Your task to perform on an android device: Open calendar and show me the third week of next month Image 0: 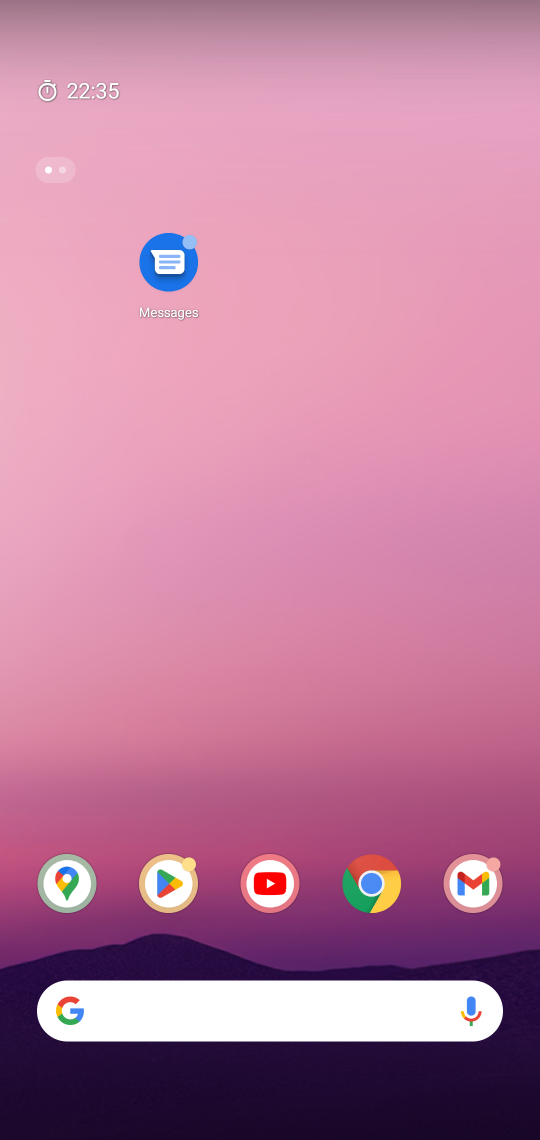
Step 0: drag from (322, 941) to (301, 97)
Your task to perform on an android device: Open calendar and show me the third week of next month Image 1: 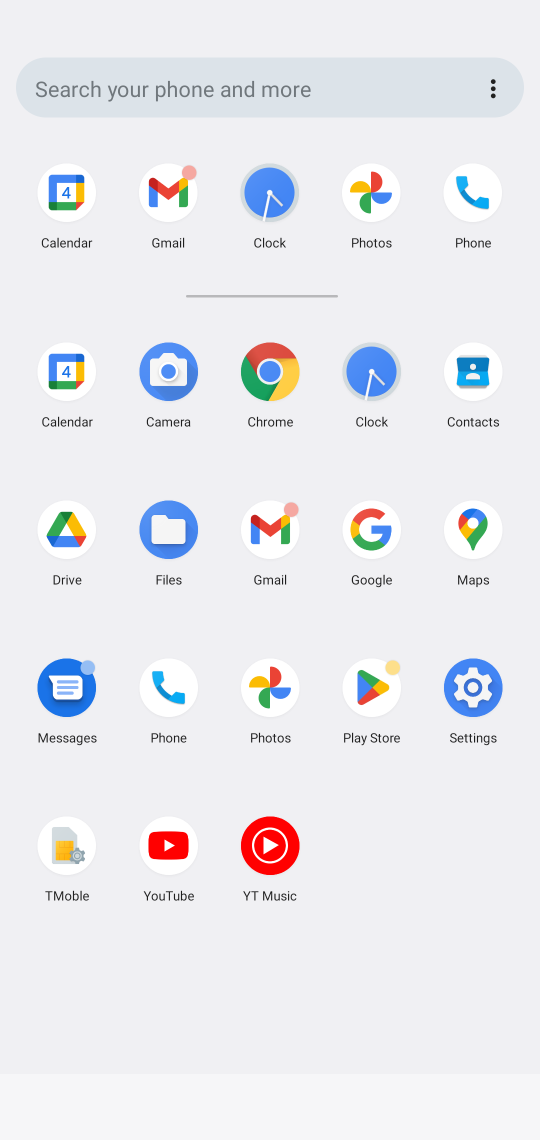
Step 1: click (58, 371)
Your task to perform on an android device: Open calendar and show me the third week of next month Image 2: 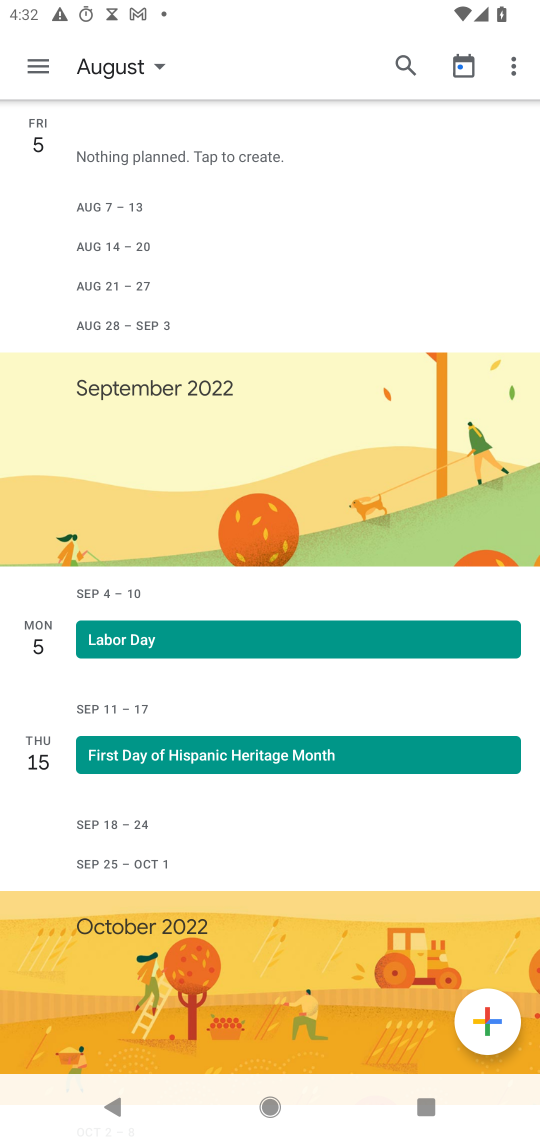
Step 2: click (161, 64)
Your task to perform on an android device: Open calendar and show me the third week of next month Image 3: 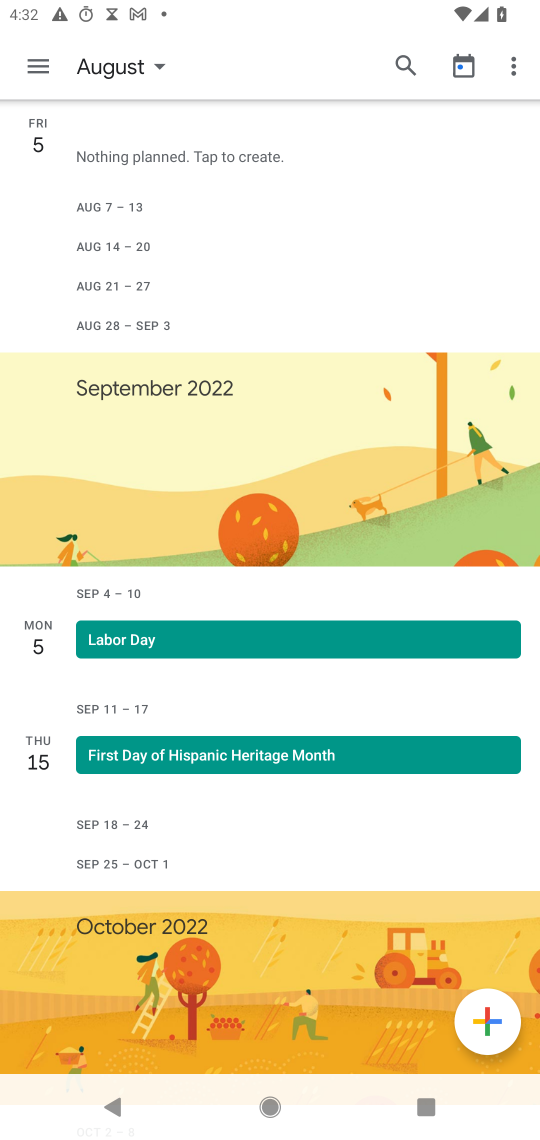
Step 3: click (154, 61)
Your task to perform on an android device: Open calendar and show me the third week of next month Image 4: 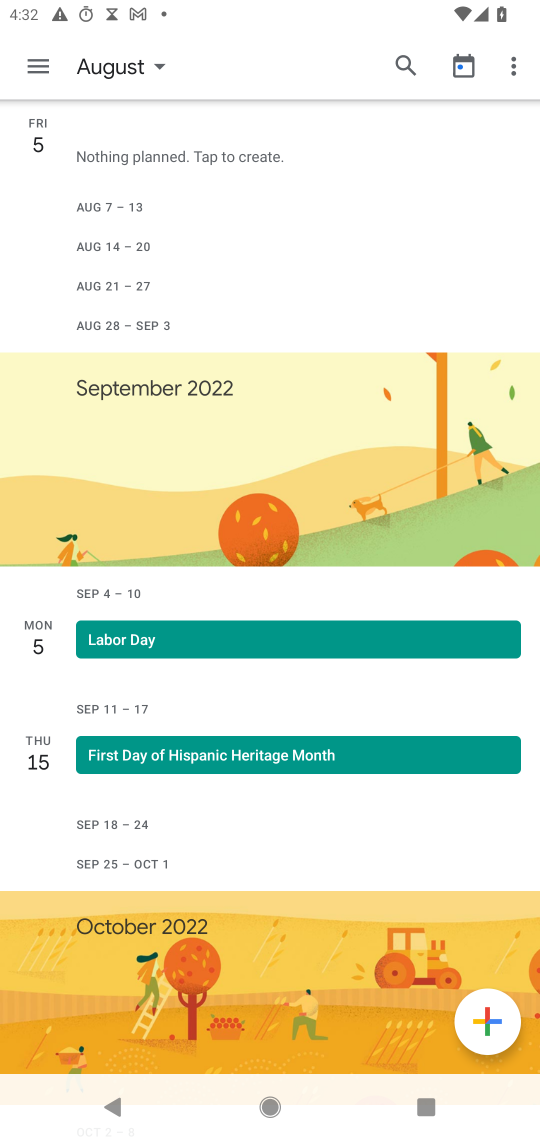
Step 4: click (159, 60)
Your task to perform on an android device: Open calendar and show me the third week of next month Image 5: 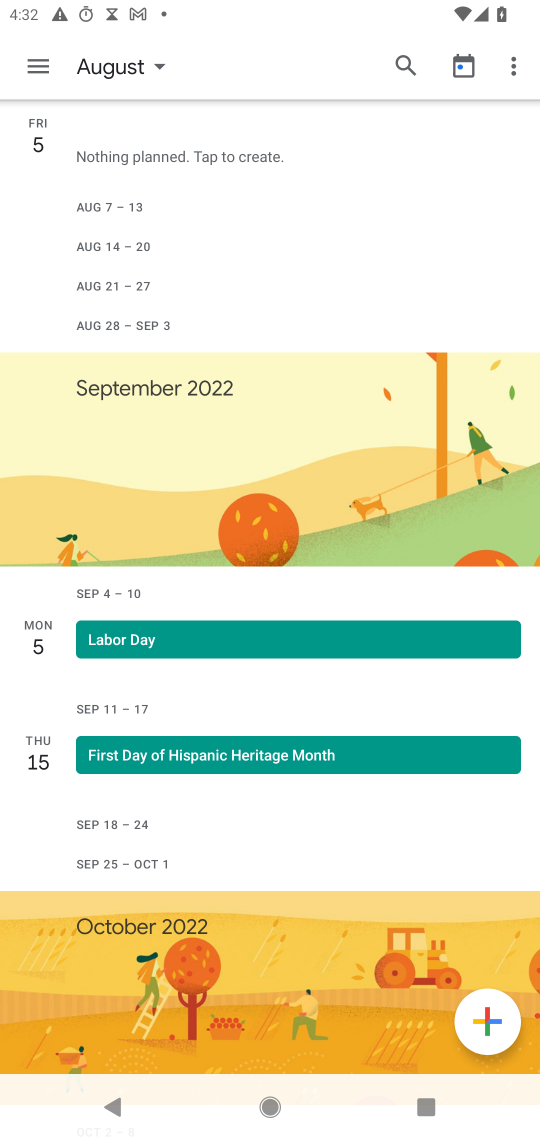
Step 5: click (162, 69)
Your task to perform on an android device: Open calendar and show me the third week of next month Image 6: 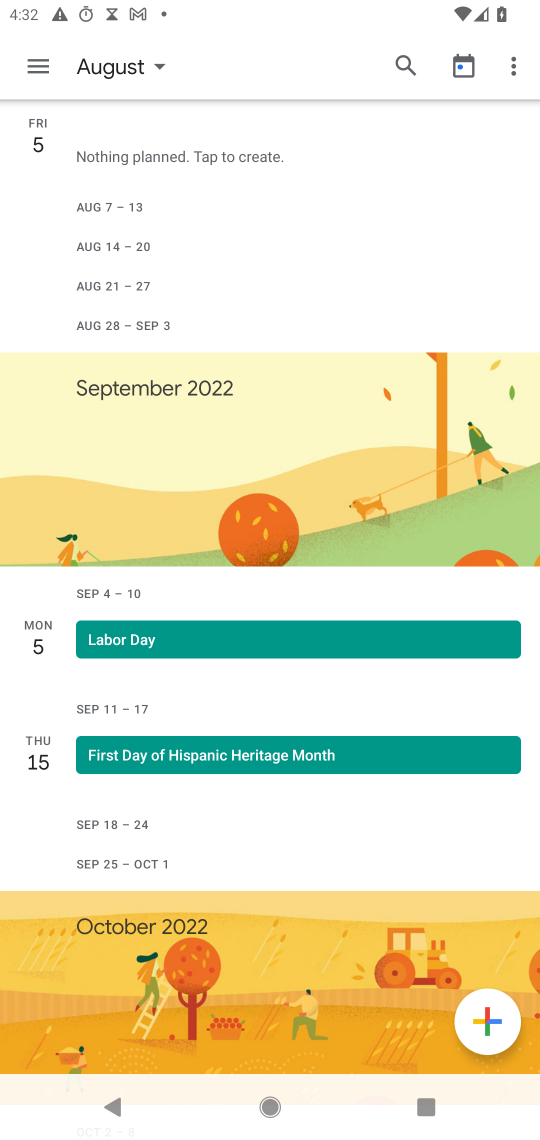
Step 6: click (152, 61)
Your task to perform on an android device: Open calendar and show me the third week of next month Image 7: 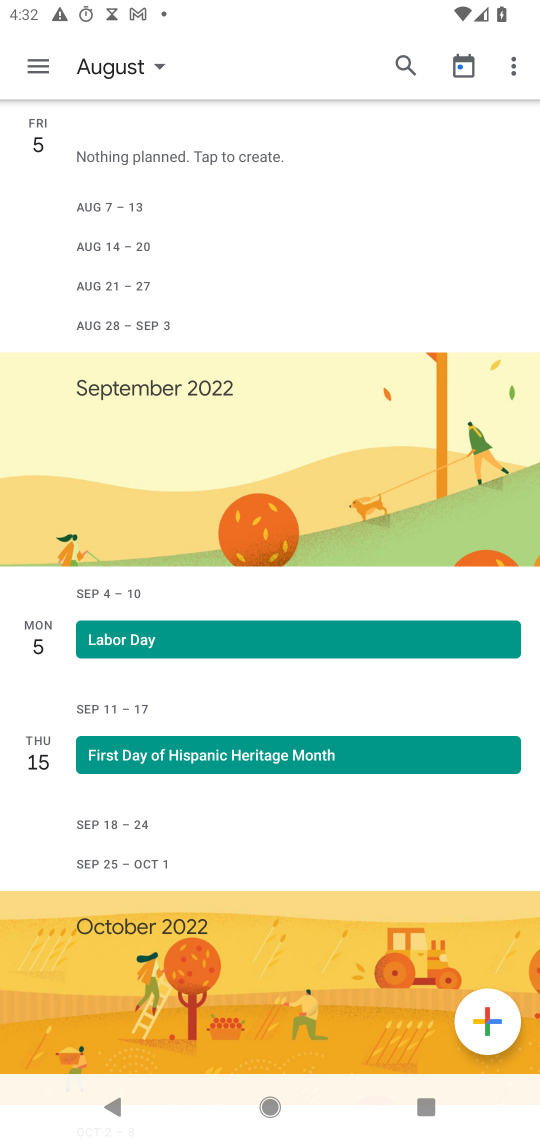
Step 7: click (163, 59)
Your task to perform on an android device: Open calendar and show me the third week of next month Image 8: 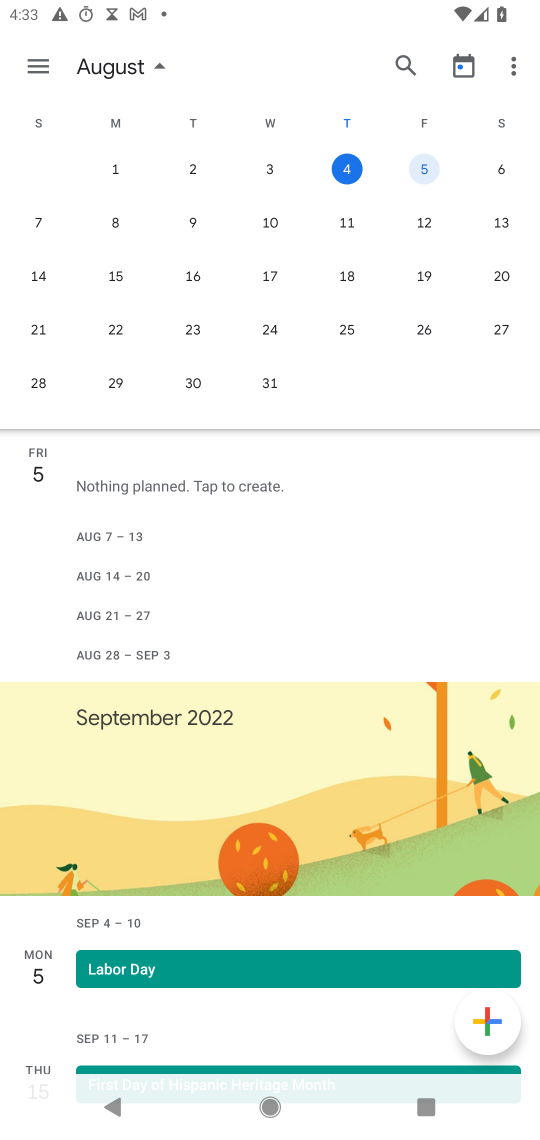
Step 8: click (146, 64)
Your task to perform on an android device: Open calendar and show me the third week of next month Image 9: 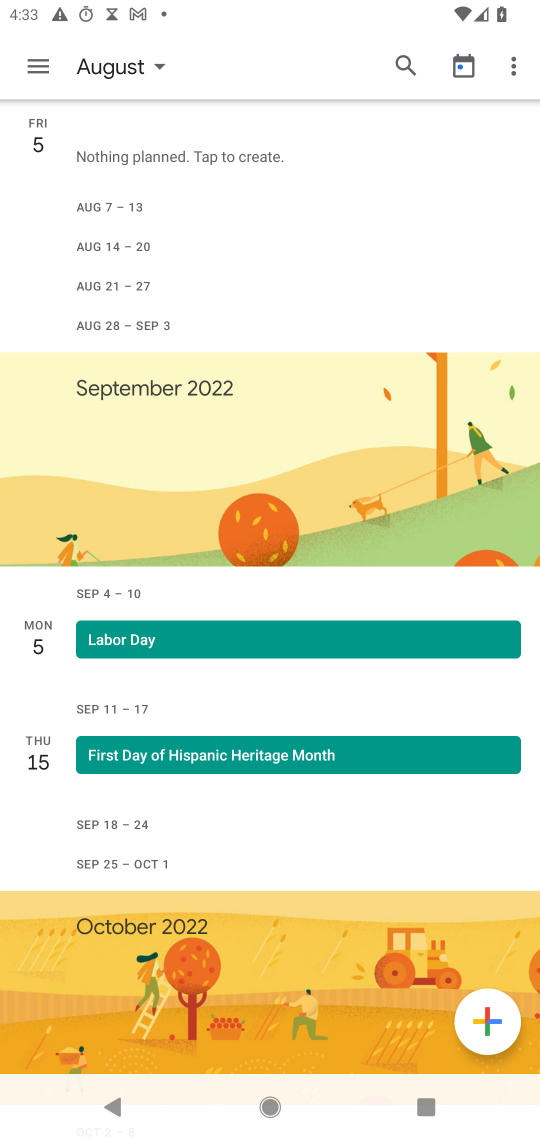
Step 9: click (157, 61)
Your task to perform on an android device: Open calendar and show me the third week of next month Image 10: 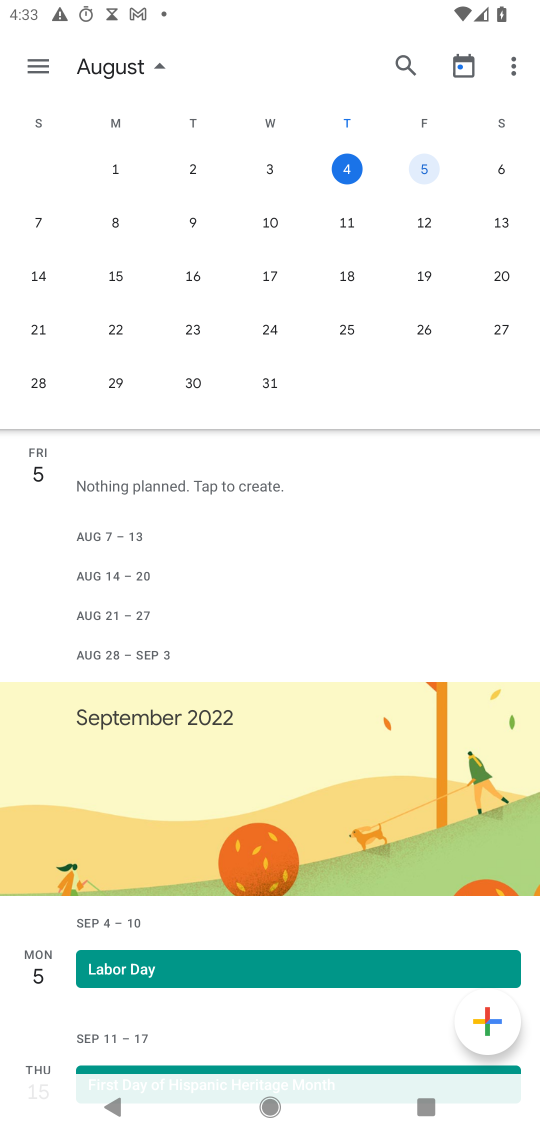
Step 10: drag from (456, 267) to (61, 265)
Your task to perform on an android device: Open calendar and show me the third week of next month Image 11: 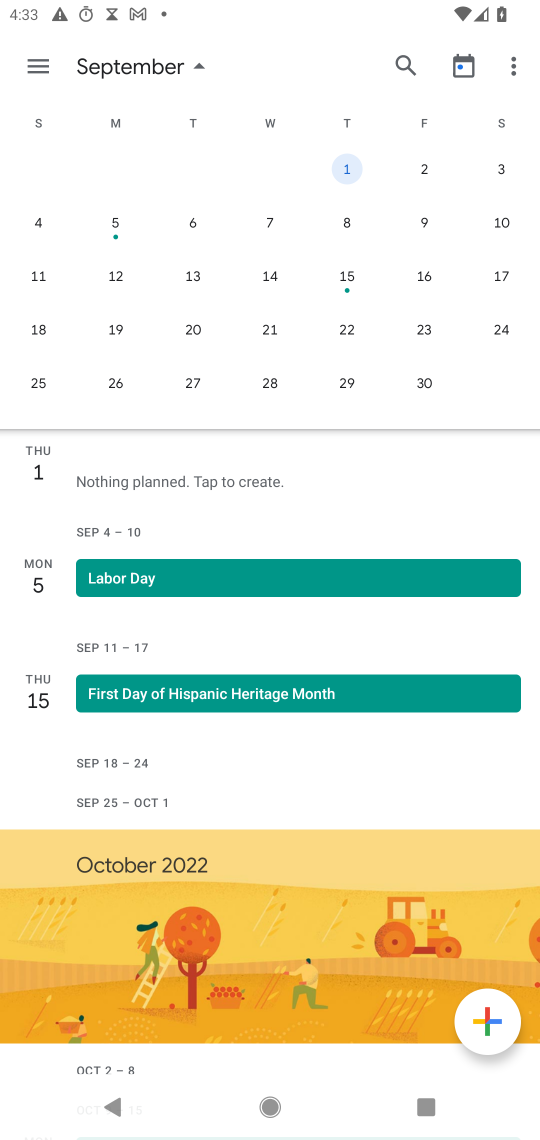
Step 11: click (112, 327)
Your task to perform on an android device: Open calendar and show me the third week of next month Image 12: 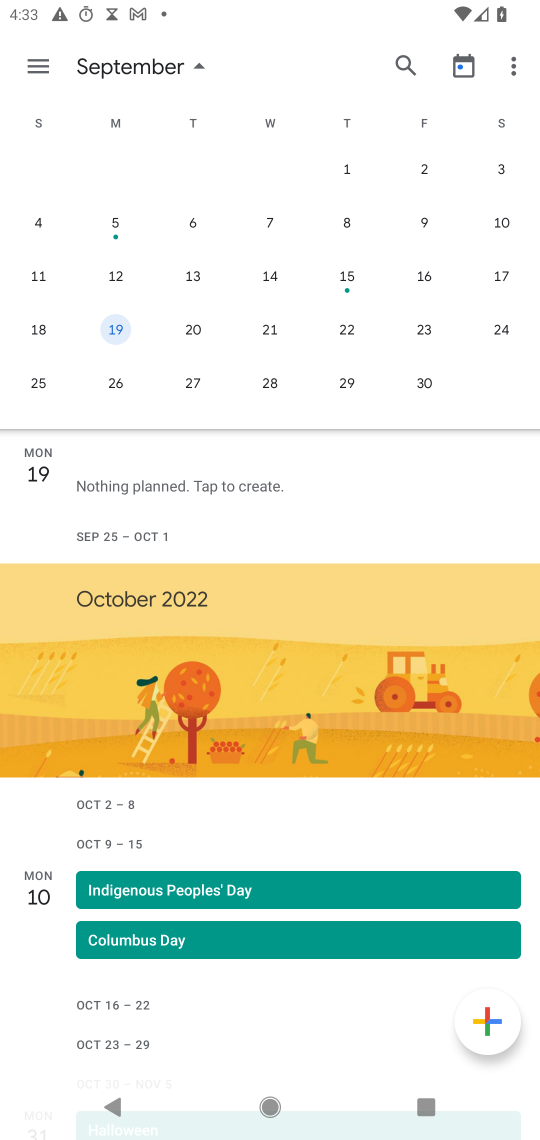
Step 12: click (49, 65)
Your task to perform on an android device: Open calendar and show me the third week of next month Image 13: 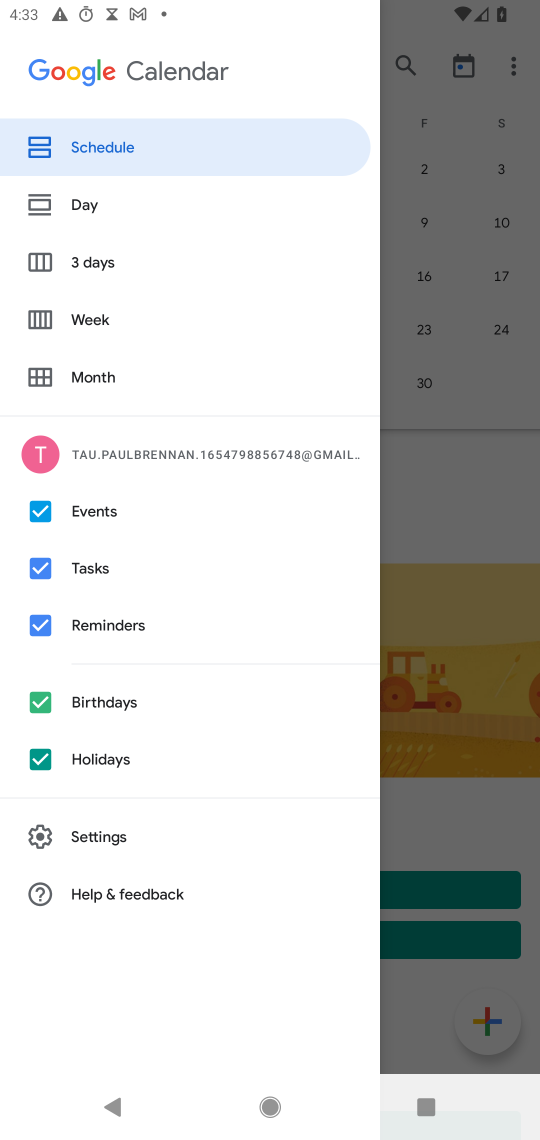
Step 13: click (81, 316)
Your task to perform on an android device: Open calendar and show me the third week of next month Image 14: 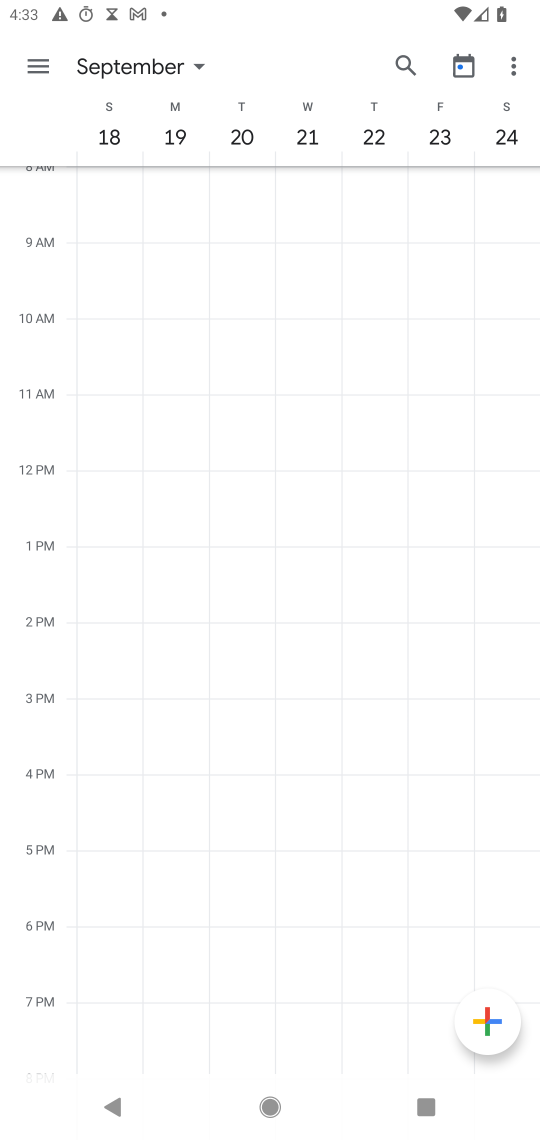
Step 14: task complete